Your task to perform on an android device: toggle improve location accuracy Image 0: 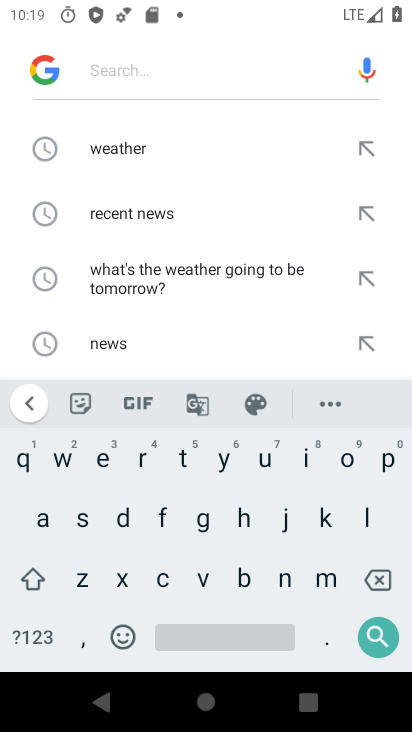
Step 0: press back button
Your task to perform on an android device: toggle improve location accuracy Image 1: 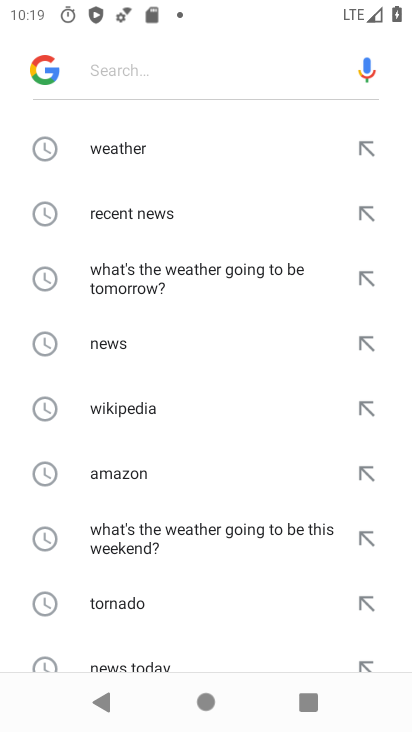
Step 1: press back button
Your task to perform on an android device: toggle improve location accuracy Image 2: 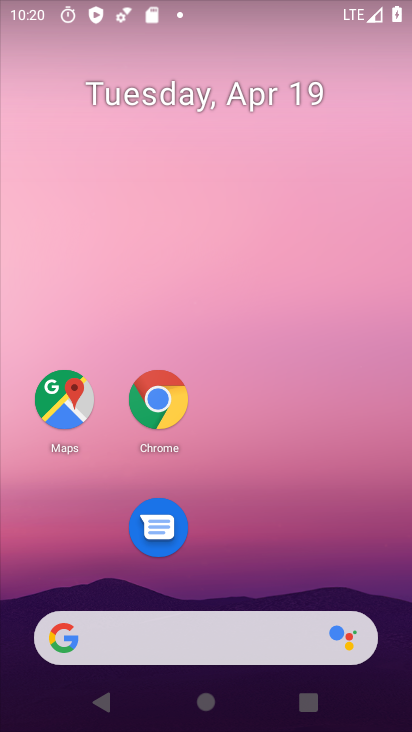
Step 2: drag from (270, 609) to (233, 233)
Your task to perform on an android device: toggle improve location accuracy Image 3: 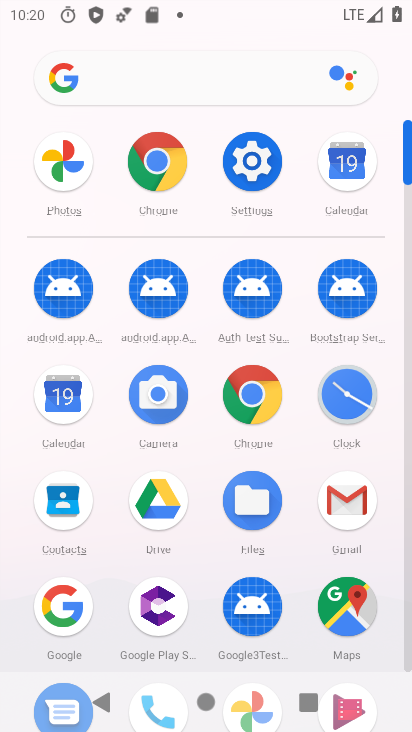
Step 3: click (252, 144)
Your task to perform on an android device: toggle improve location accuracy Image 4: 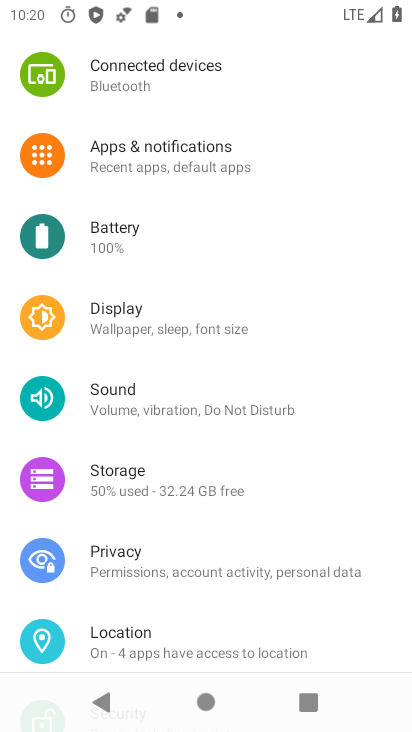
Step 4: drag from (185, 166) to (119, 500)
Your task to perform on an android device: toggle improve location accuracy Image 5: 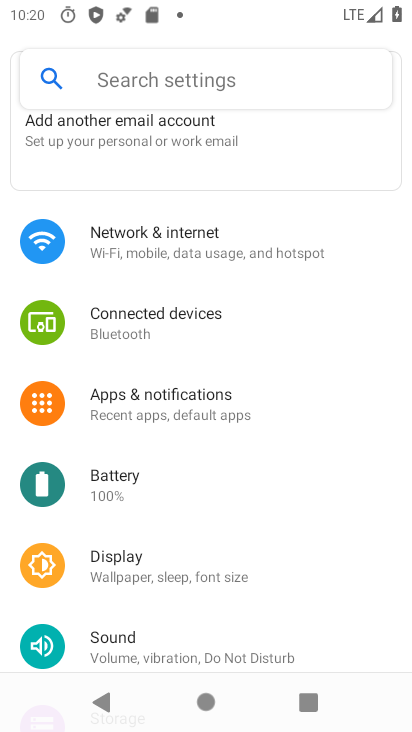
Step 5: click (160, 73)
Your task to perform on an android device: toggle improve location accuracy Image 6: 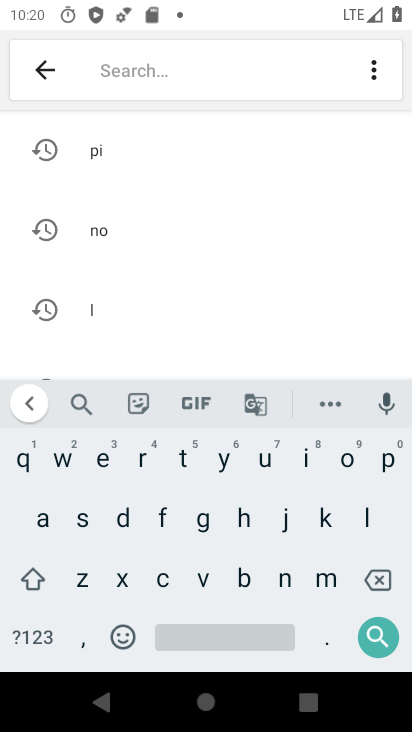
Step 6: click (92, 305)
Your task to perform on an android device: toggle improve location accuracy Image 7: 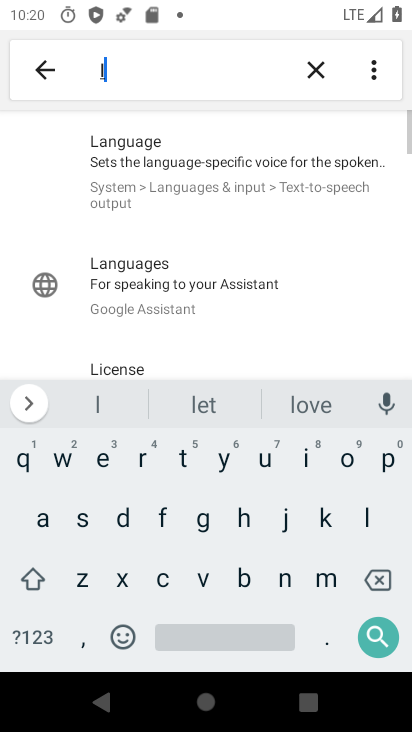
Step 7: drag from (170, 309) to (237, 161)
Your task to perform on an android device: toggle improve location accuracy Image 8: 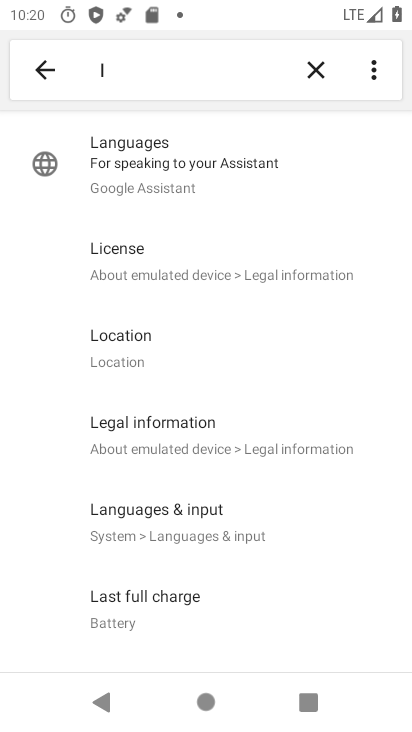
Step 8: click (121, 347)
Your task to perform on an android device: toggle improve location accuracy Image 9: 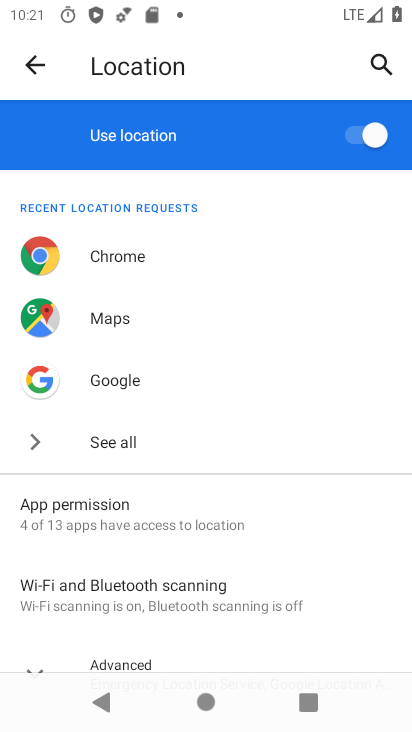
Step 9: drag from (221, 536) to (256, 285)
Your task to perform on an android device: toggle improve location accuracy Image 10: 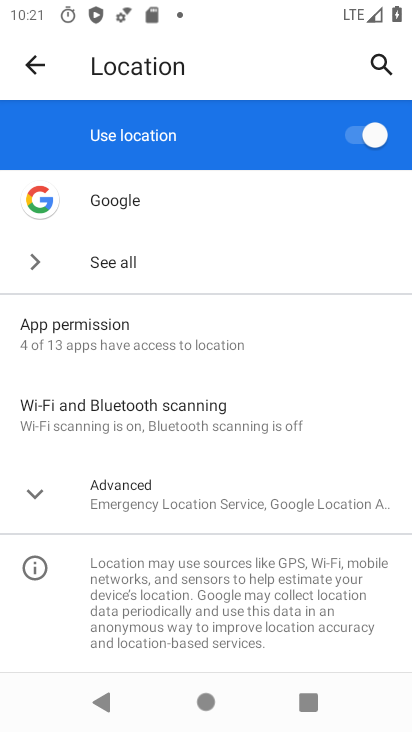
Step 10: click (42, 486)
Your task to perform on an android device: toggle improve location accuracy Image 11: 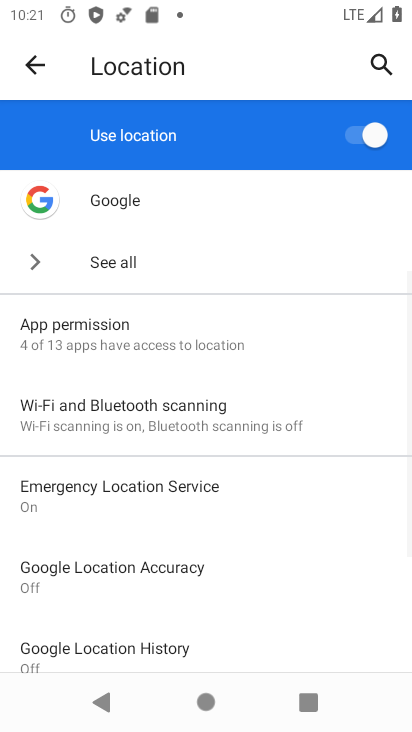
Step 11: drag from (224, 537) to (261, 396)
Your task to perform on an android device: toggle improve location accuracy Image 12: 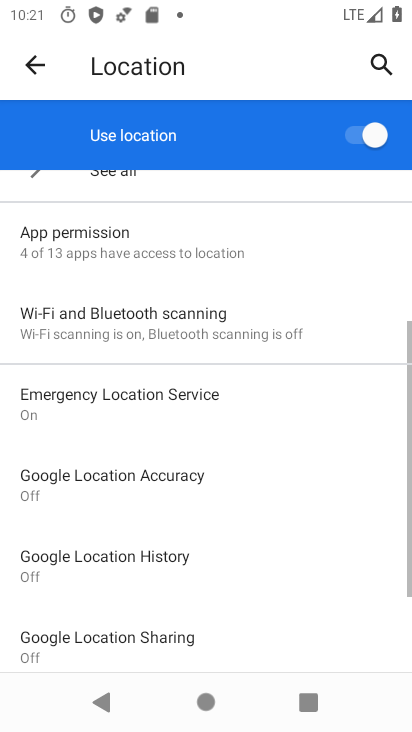
Step 12: click (139, 478)
Your task to perform on an android device: toggle improve location accuracy Image 13: 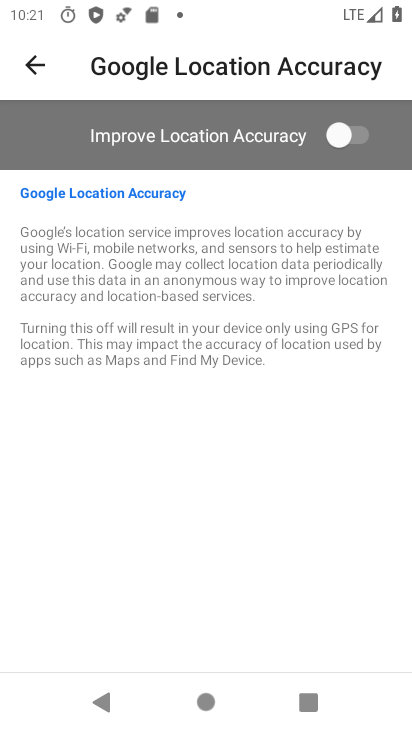
Step 13: task complete